Your task to perform on an android device: see sites visited before in the chrome app Image 0: 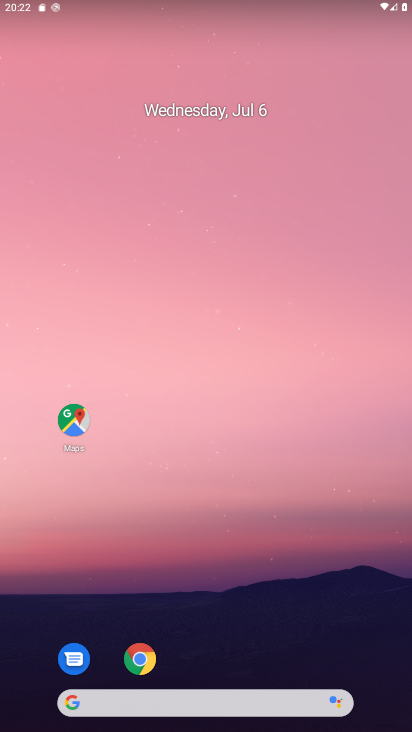
Step 0: click (145, 669)
Your task to perform on an android device: see sites visited before in the chrome app Image 1: 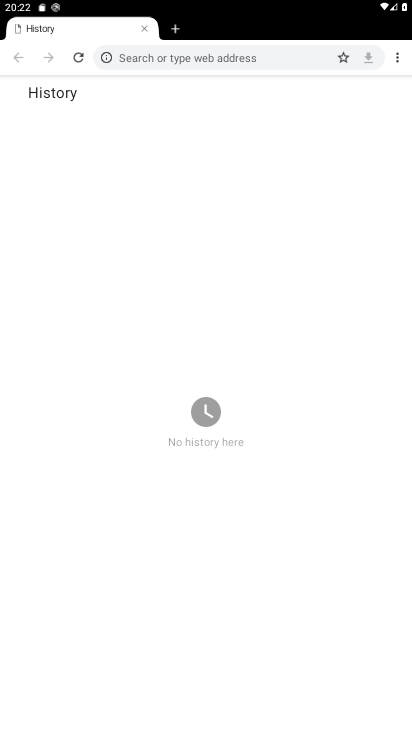
Step 1: task complete